Your task to perform on an android device: Go to calendar. Show me events next week Image 0: 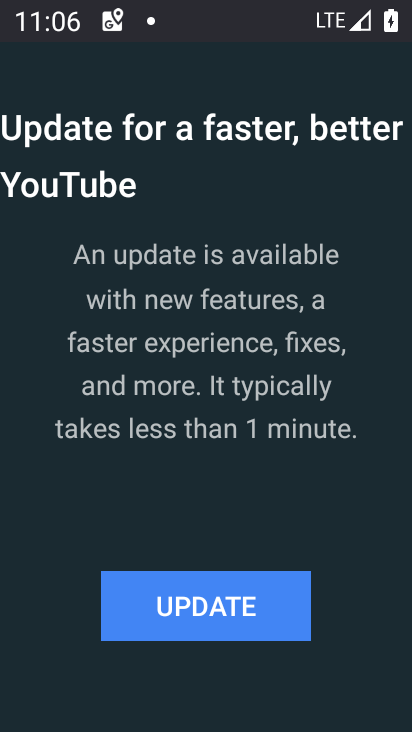
Step 0: press home button
Your task to perform on an android device: Go to calendar. Show me events next week Image 1: 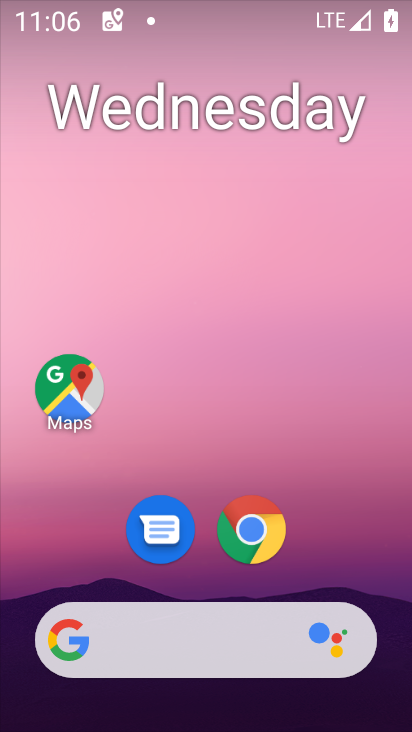
Step 1: drag from (395, 622) to (292, 73)
Your task to perform on an android device: Go to calendar. Show me events next week Image 2: 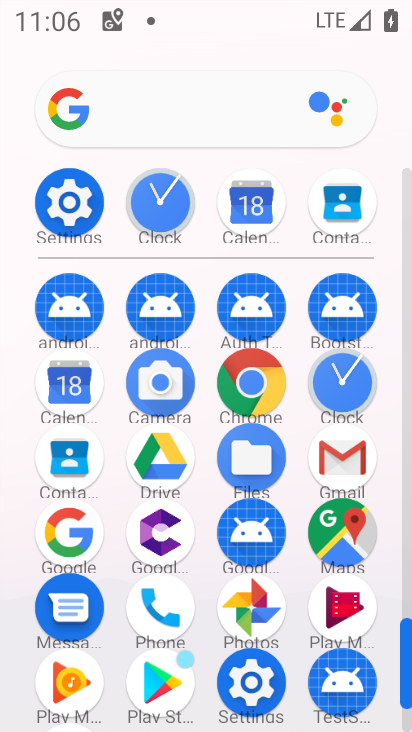
Step 2: click (410, 572)
Your task to perform on an android device: Go to calendar. Show me events next week Image 3: 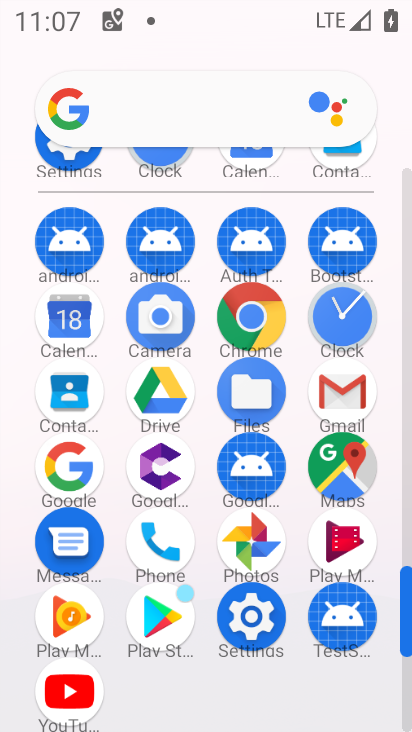
Step 3: click (66, 318)
Your task to perform on an android device: Go to calendar. Show me events next week Image 4: 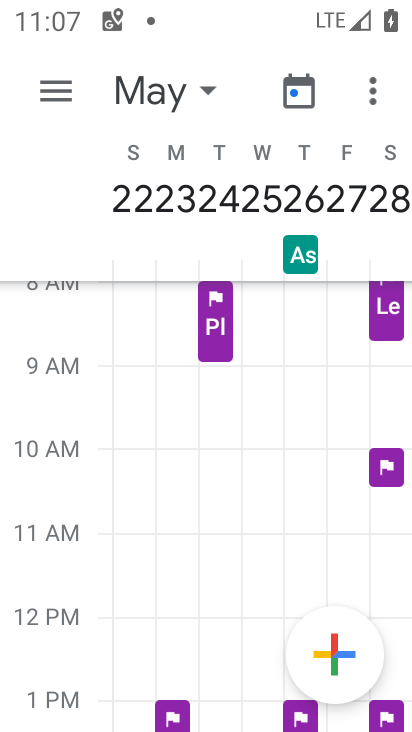
Step 4: click (55, 89)
Your task to perform on an android device: Go to calendar. Show me events next week Image 5: 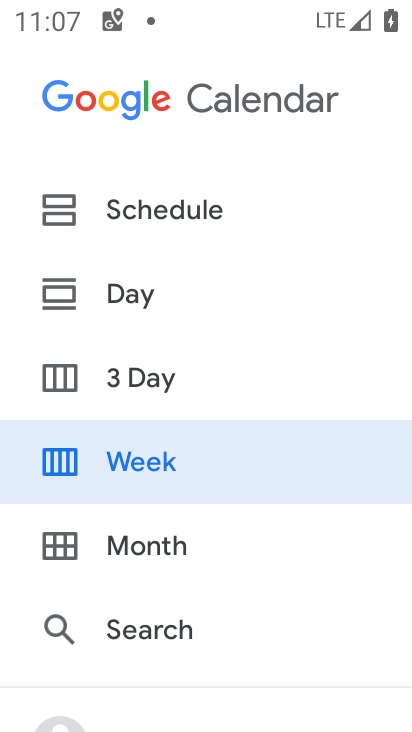
Step 5: click (151, 465)
Your task to perform on an android device: Go to calendar. Show me events next week Image 6: 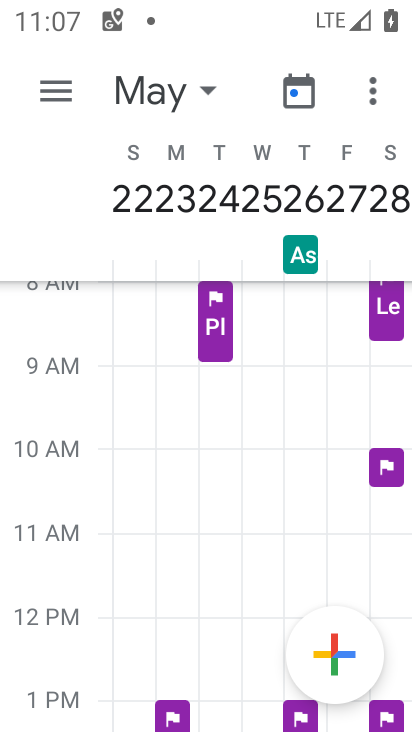
Step 6: click (188, 105)
Your task to perform on an android device: Go to calendar. Show me events next week Image 7: 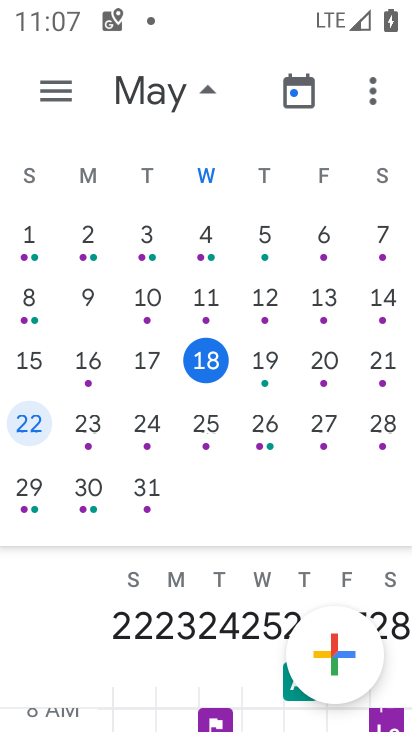
Step 7: task complete